Your task to perform on an android device: What's the weather going to be tomorrow? Image 0: 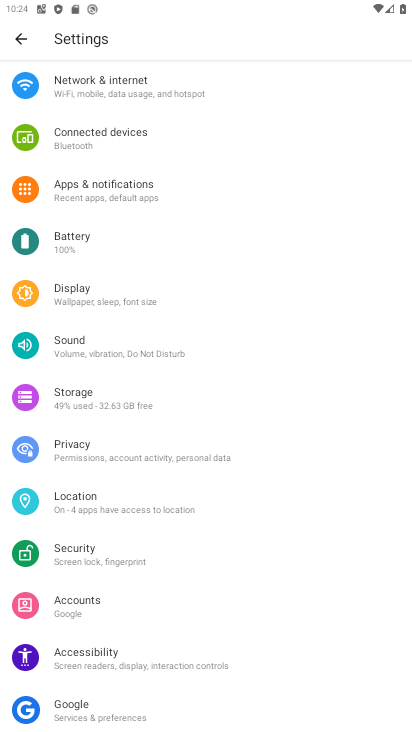
Step 0: press home button
Your task to perform on an android device: What's the weather going to be tomorrow? Image 1: 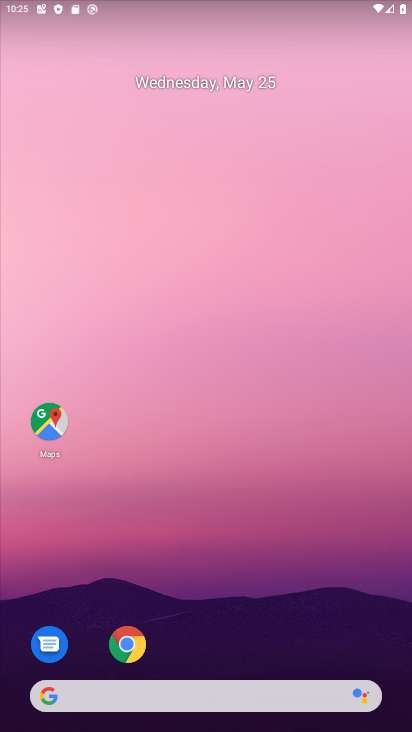
Step 1: drag from (212, 557) to (198, 90)
Your task to perform on an android device: What's the weather going to be tomorrow? Image 2: 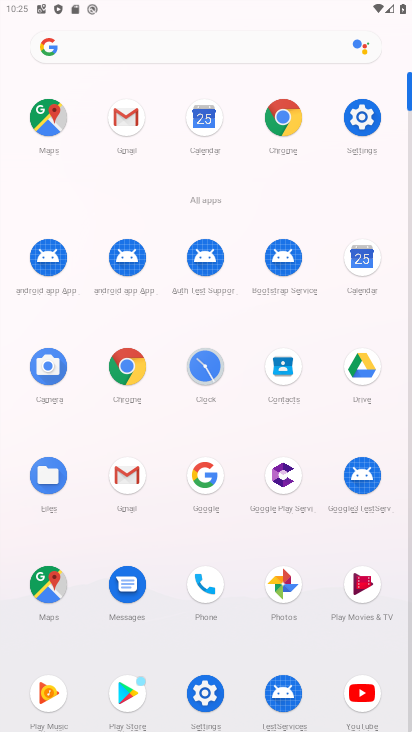
Step 2: click (137, 40)
Your task to perform on an android device: What's the weather going to be tomorrow? Image 3: 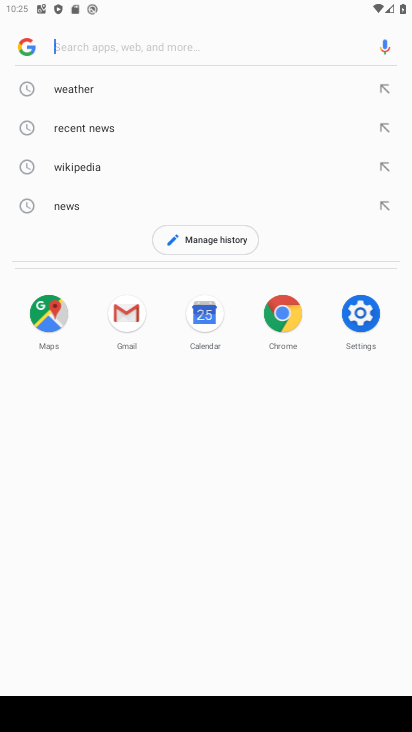
Step 3: click (68, 85)
Your task to perform on an android device: What's the weather going to be tomorrow? Image 4: 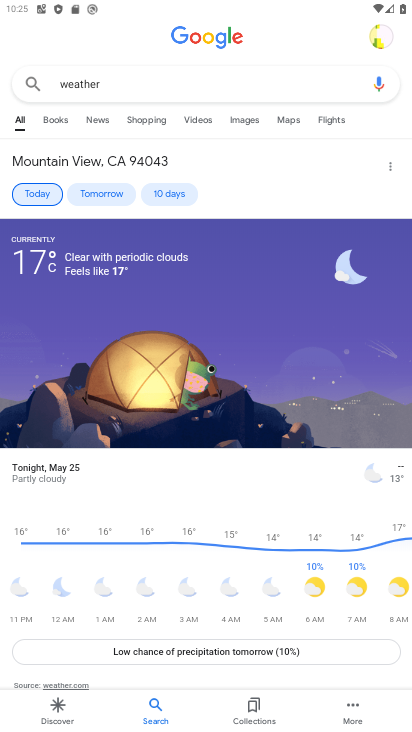
Step 4: click (101, 197)
Your task to perform on an android device: What's the weather going to be tomorrow? Image 5: 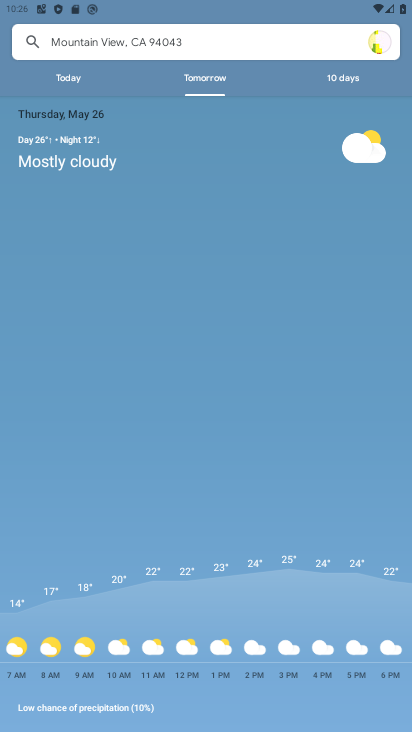
Step 5: task complete